Your task to perform on an android device: create a new album in the google photos Image 0: 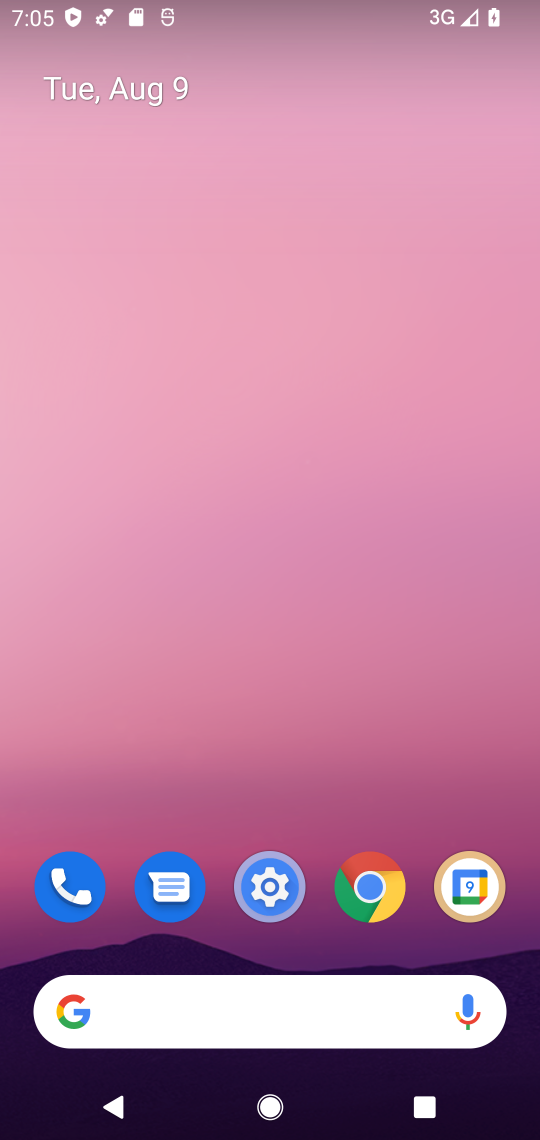
Step 0: drag from (272, 670) to (305, 6)
Your task to perform on an android device: create a new album in the google photos Image 1: 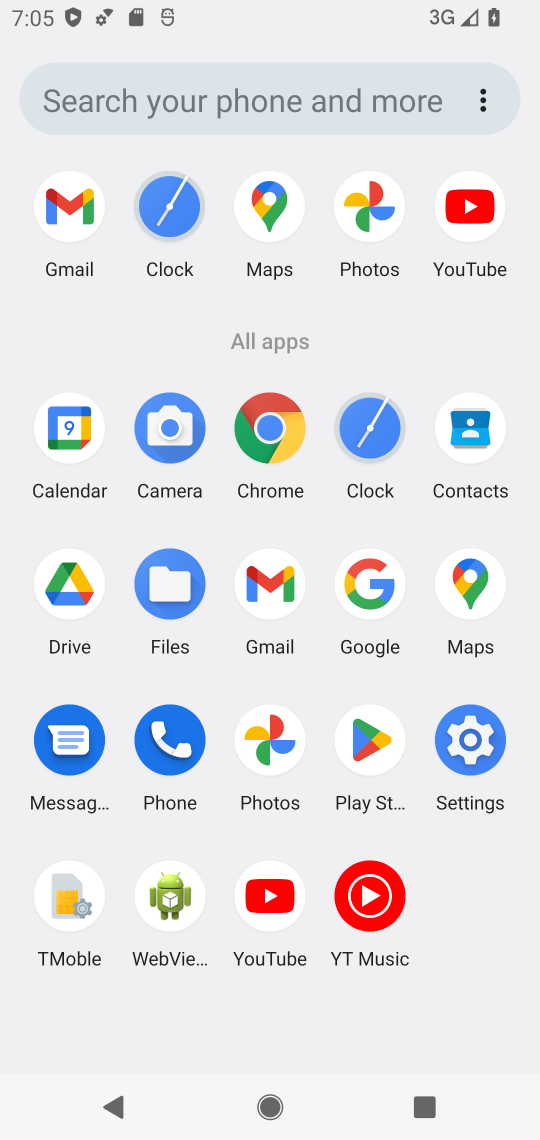
Step 1: click (372, 212)
Your task to perform on an android device: create a new album in the google photos Image 2: 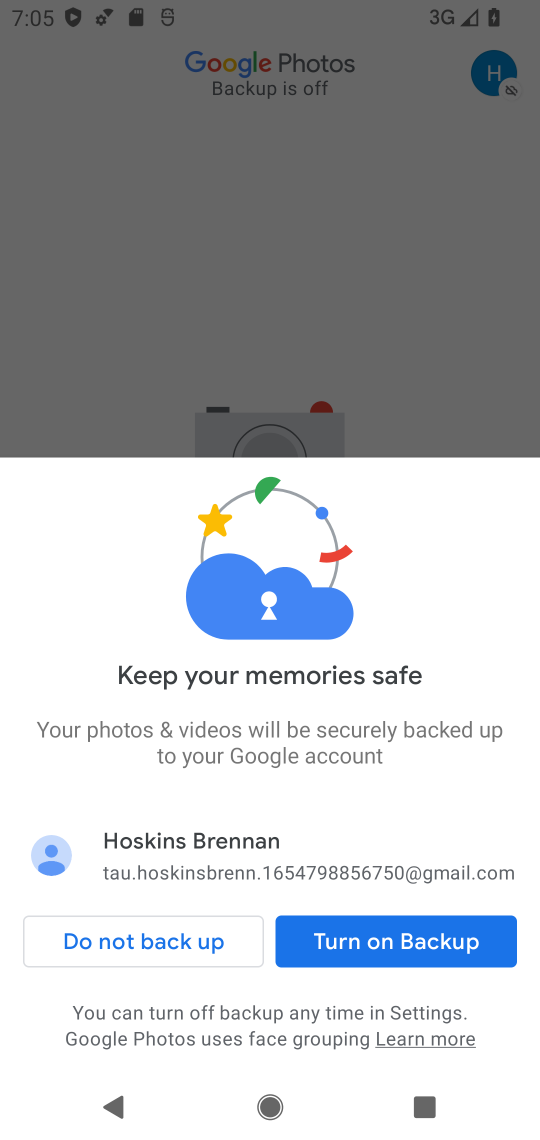
Step 2: click (440, 941)
Your task to perform on an android device: create a new album in the google photos Image 3: 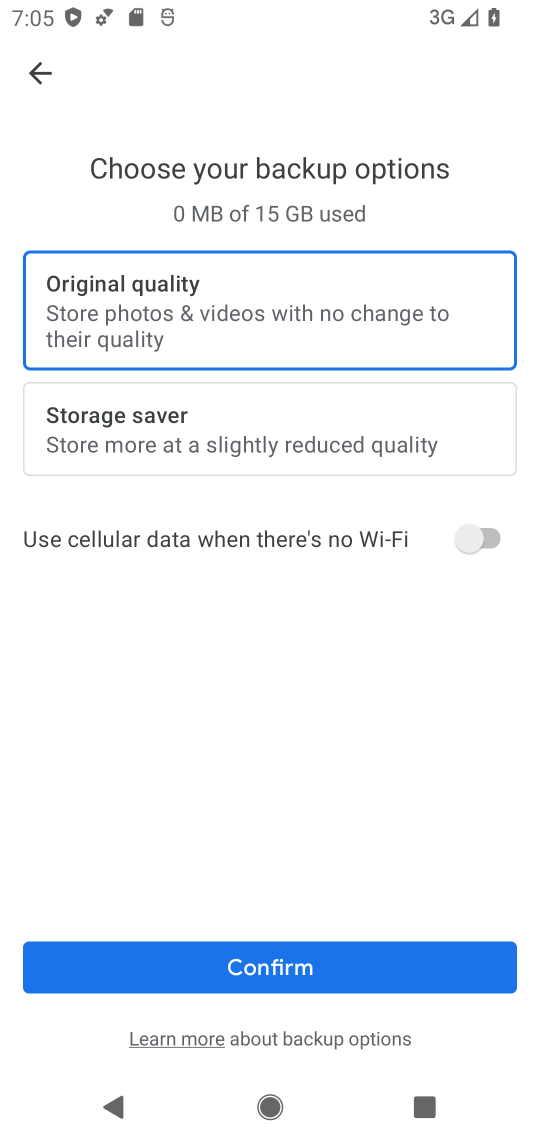
Step 3: click (435, 973)
Your task to perform on an android device: create a new album in the google photos Image 4: 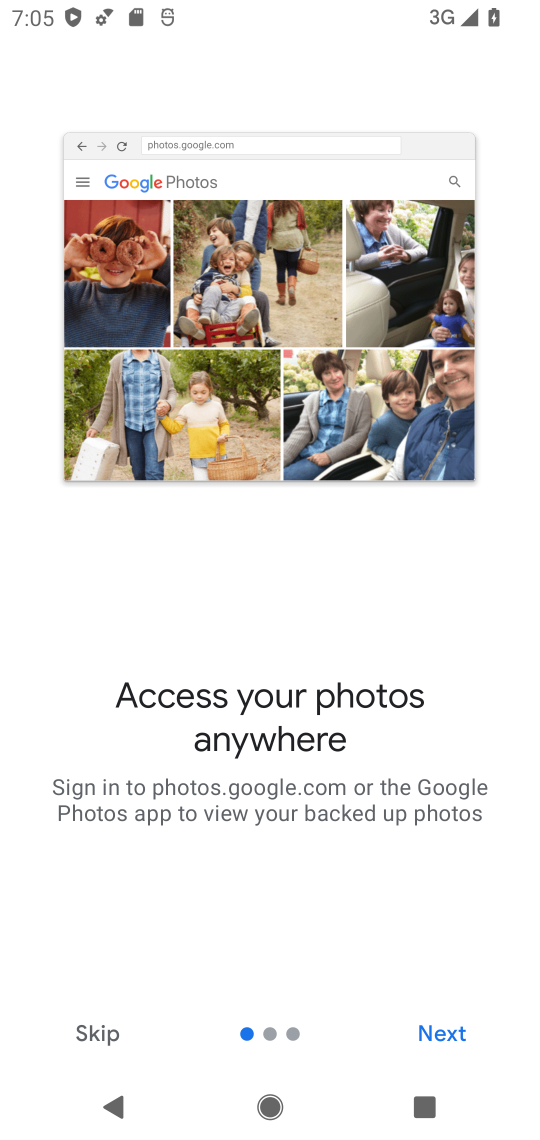
Step 4: click (459, 1035)
Your task to perform on an android device: create a new album in the google photos Image 5: 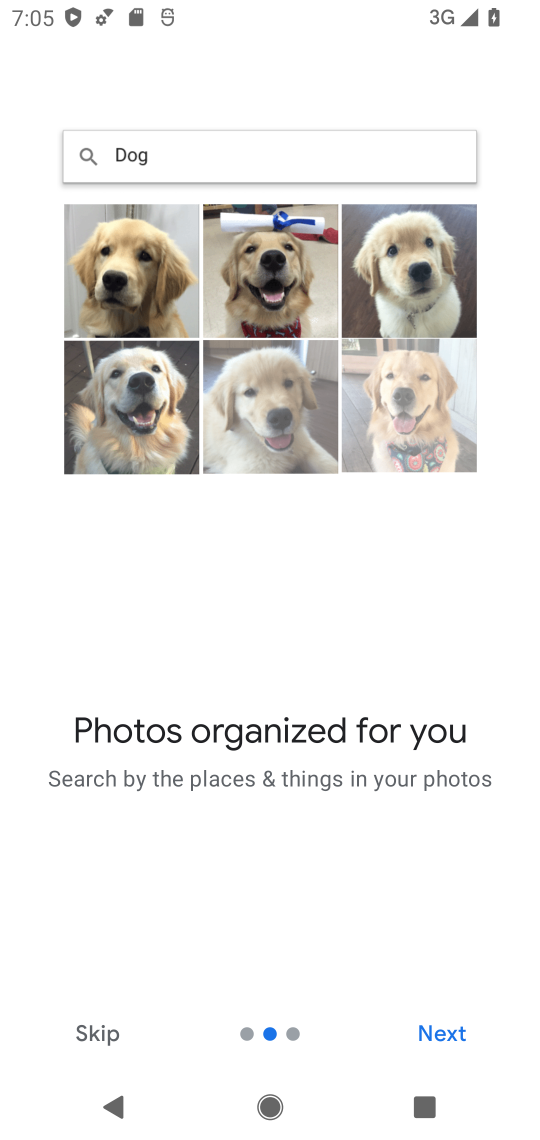
Step 5: click (459, 1035)
Your task to perform on an android device: create a new album in the google photos Image 6: 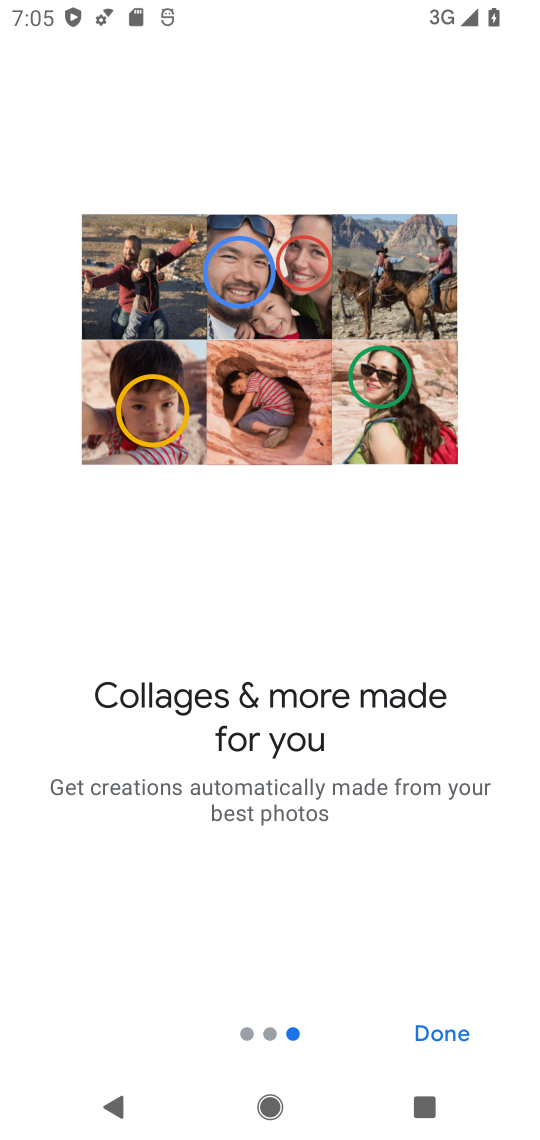
Step 6: click (459, 1035)
Your task to perform on an android device: create a new album in the google photos Image 7: 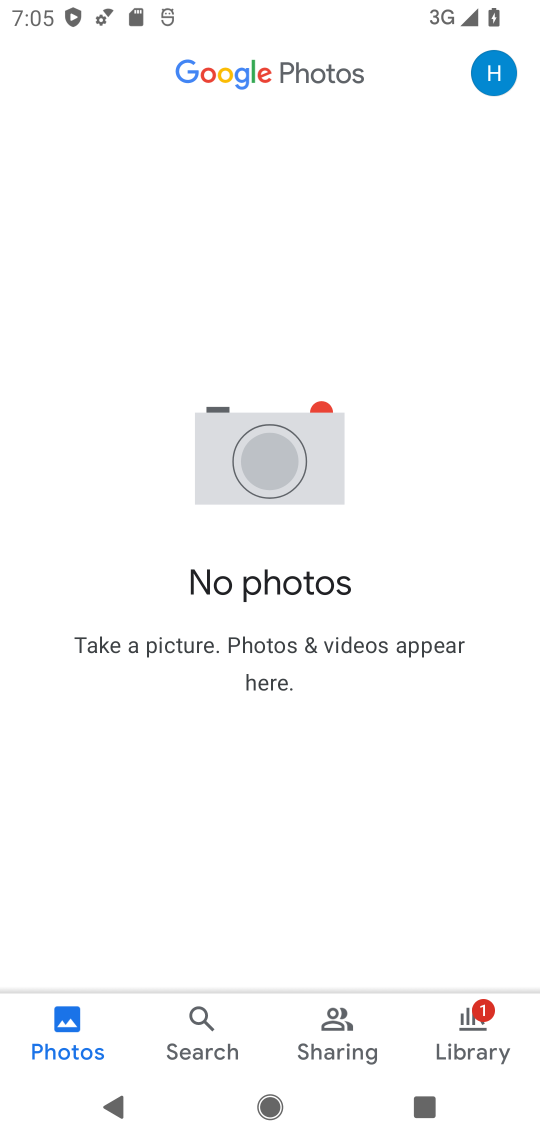
Step 7: task complete